Your task to perform on an android device: open the mobile data screen to see how much data has been used Image 0: 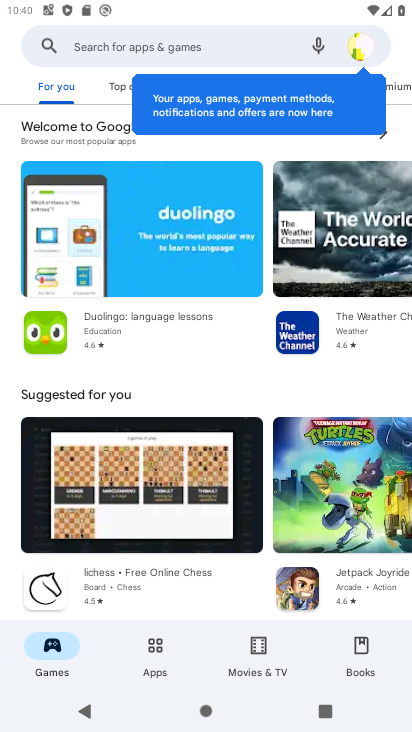
Step 0: press home button
Your task to perform on an android device: open the mobile data screen to see how much data has been used Image 1: 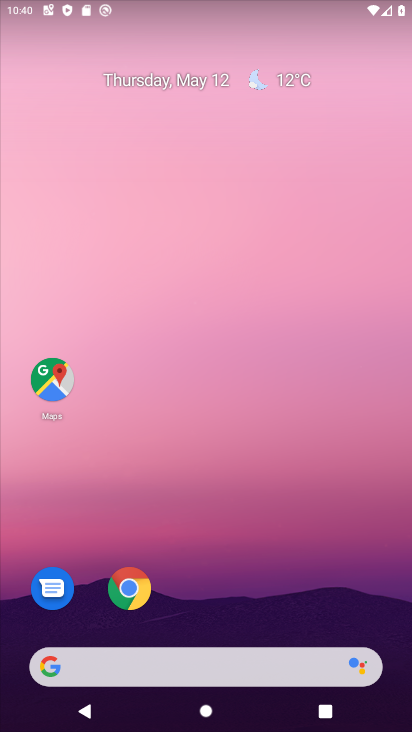
Step 1: drag from (242, 597) to (205, 91)
Your task to perform on an android device: open the mobile data screen to see how much data has been used Image 2: 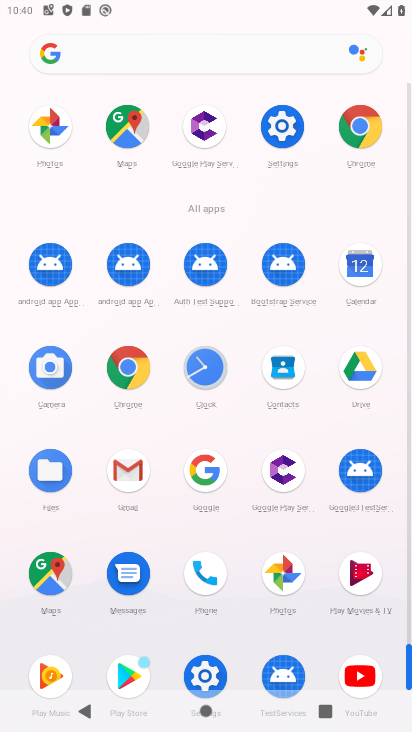
Step 2: click (283, 124)
Your task to perform on an android device: open the mobile data screen to see how much data has been used Image 3: 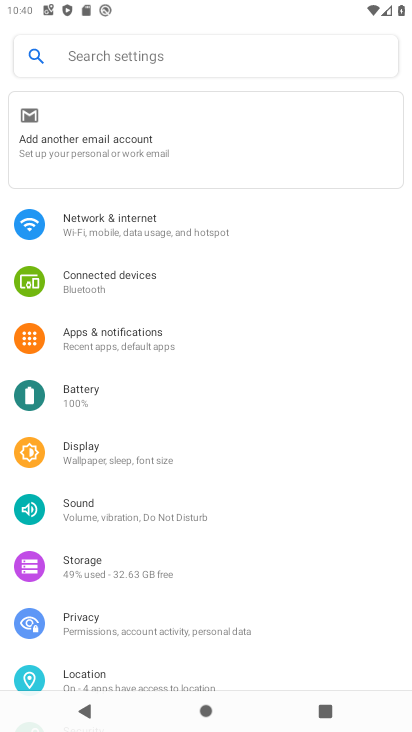
Step 3: click (143, 224)
Your task to perform on an android device: open the mobile data screen to see how much data has been used Image 4: 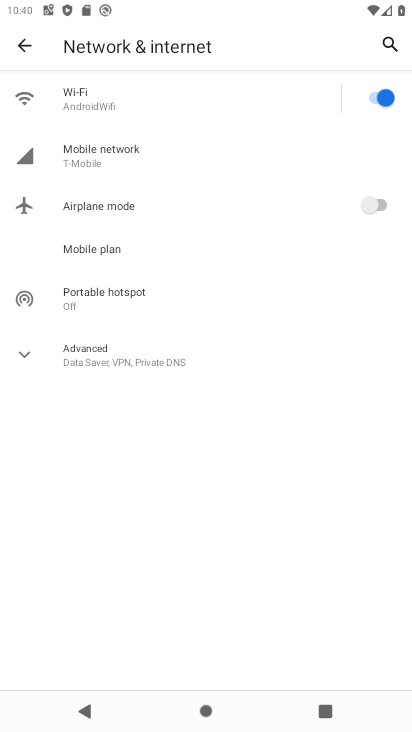
Step 4: click (88, 150)
Your task to perform on an android device: open the mobile data screen to see how much data has been used Image 5: 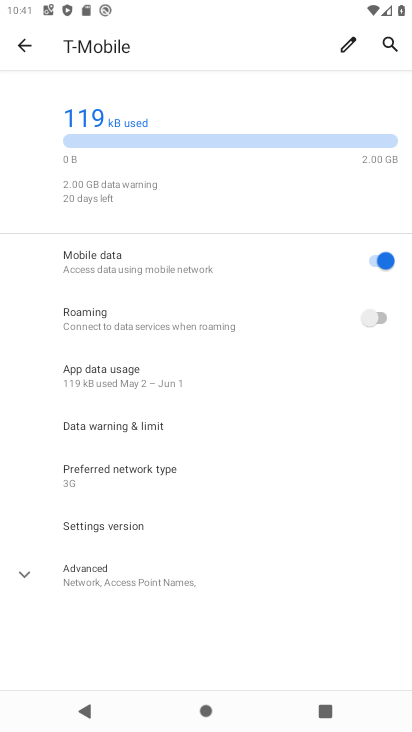
Step 5: task complete